Your task to perform on an android device: Open eBay Image 0: 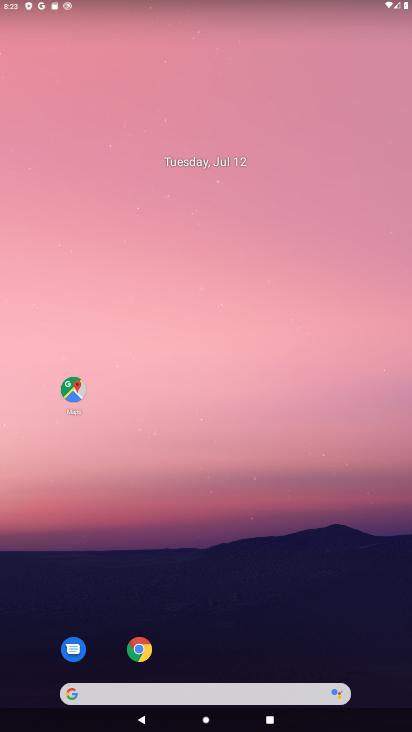
Step 0: click (154, 646)
Your task to perform on an android device: Open eBay Image 1: 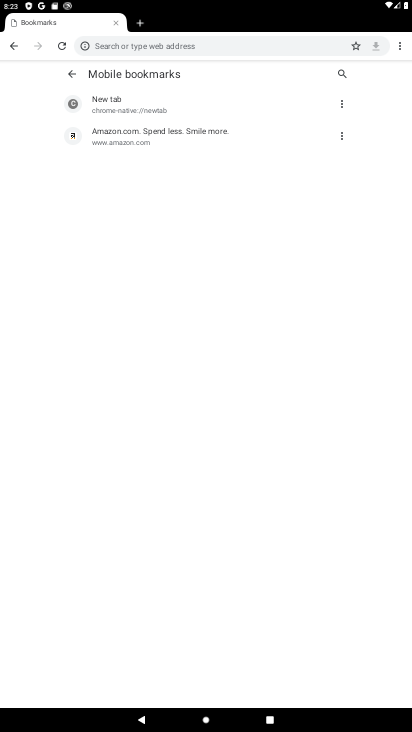
Step 1: click (342, 67)
Your task to perform on an android device: Open eBay Image 2: 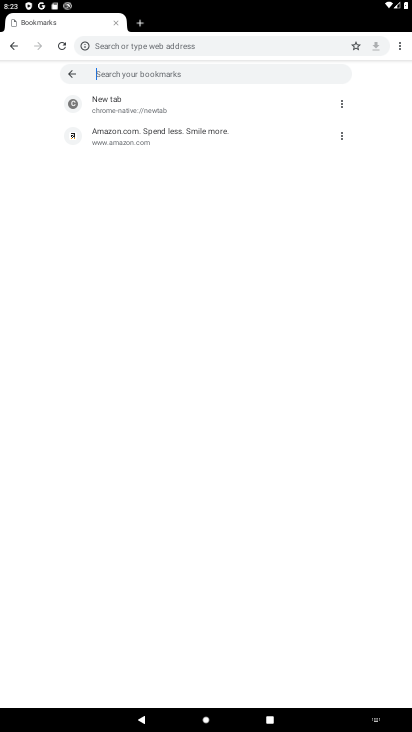
Step 2: click (259, 44)
Your task to perform on an android device: Open eBay Image 3: 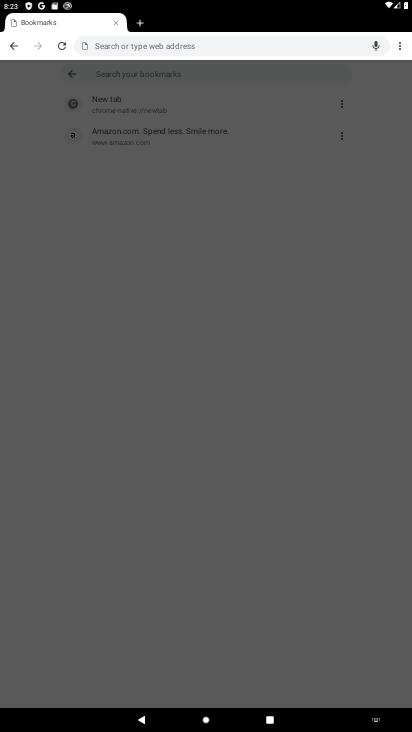
Step 3: click (9, 42)
Your task to perform on an android device: Open eBay Image 4: 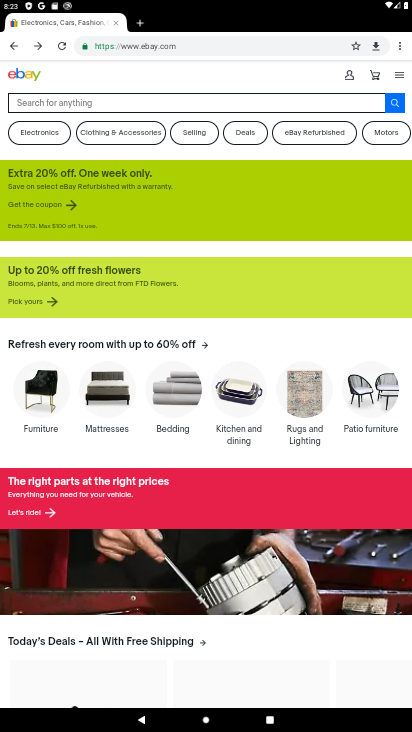
Step 4: task complete